Your task to perform on an android device: toggle translation in the chrome app Image 0: 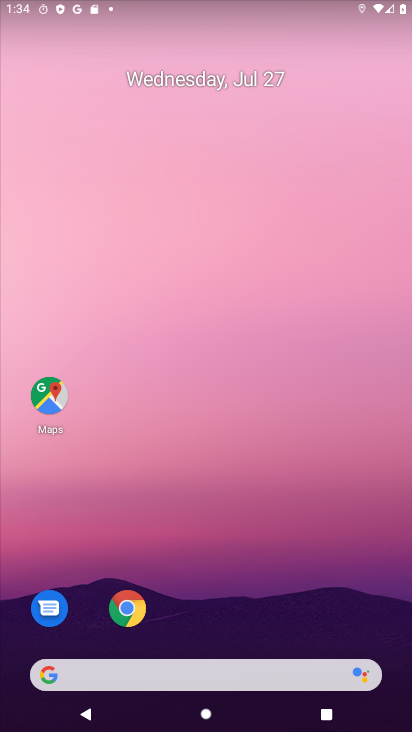
Step 0: click (129, 605)
Your task to perform on an android device: toggle translation in the chrome app Image 1: 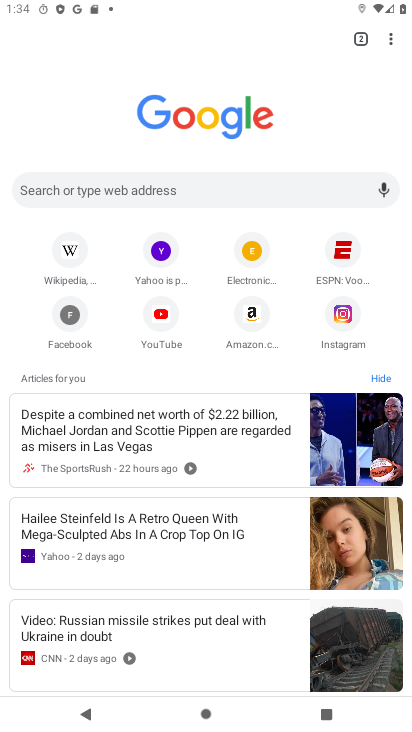
Step 1: click (389, 37)
Your task to perform on an android device: toggle translation in the chrome app Image 2: 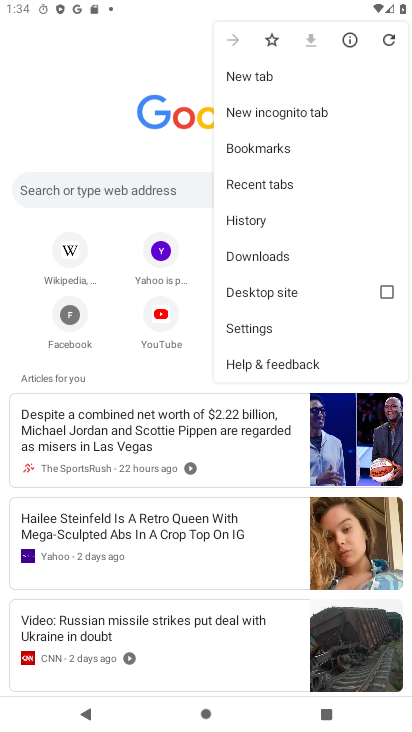
Step 2: click (238, 323)
Your task to perform on an android device: toggle translation in the chrome app Image 3: 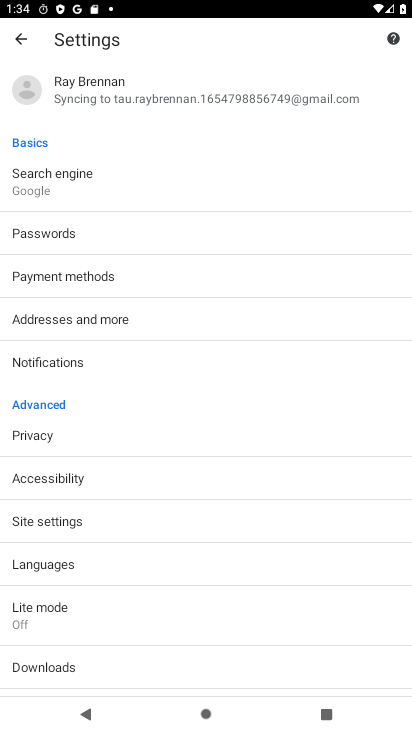
Step 3: click (48, 558)
Your task to perform on an android device: toggle translation in the chrome app Image 4: 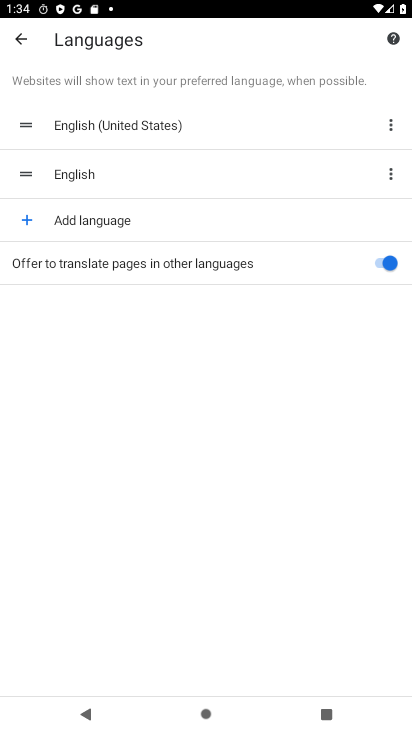
Step 4: click (370, 262)
Your task to perform on an android device: toggle translation in the chrome app Image 5: 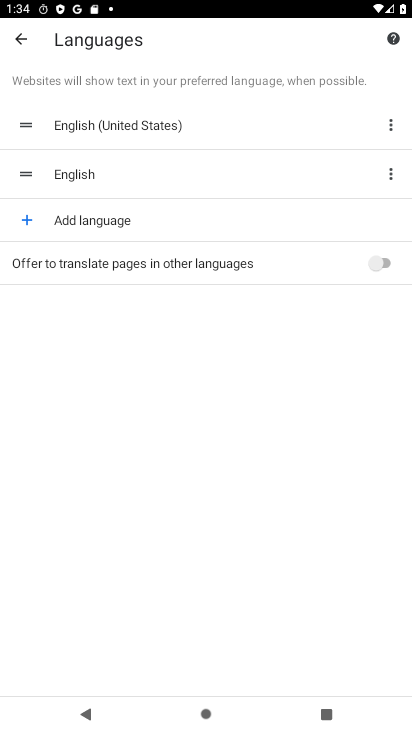
Step 5: task complete